Your task to perform on an android device: turn off data saver in the chrome app Image 0: 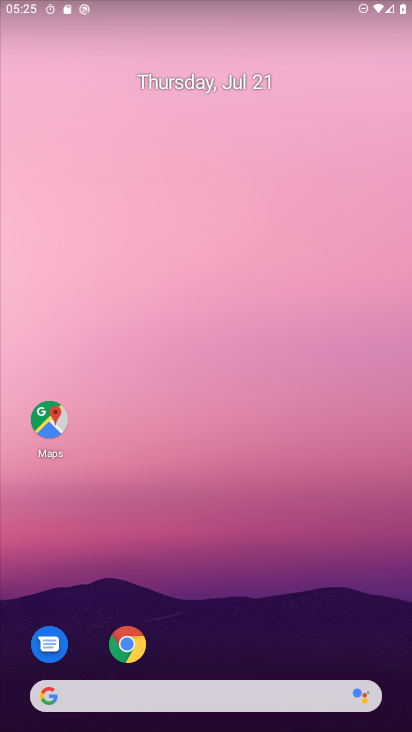
Step 0: click (128, 638)
Your task to perform on an android device: turn off data saver in the chrome app Image 1: 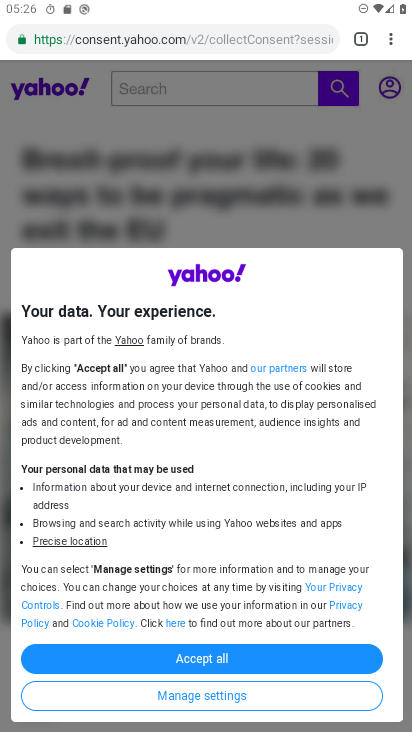
Step 1: click (387, 44)
Your task to perform on an android device: turn off data saver in the chrome app Image 2: 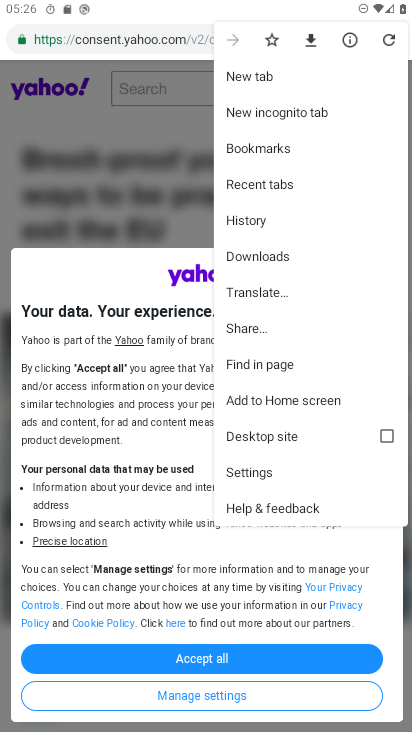
Step 2: click (270, 472)
Your task to perform on an android device: turn off data saver in the chrome app Image 3: 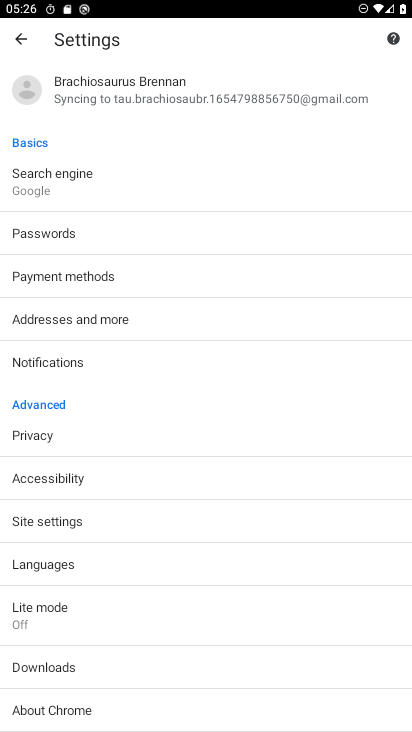
Step 3: click (41, 612)
Your task to perform on an android device: turn off data saver in the chrome app Image 4: 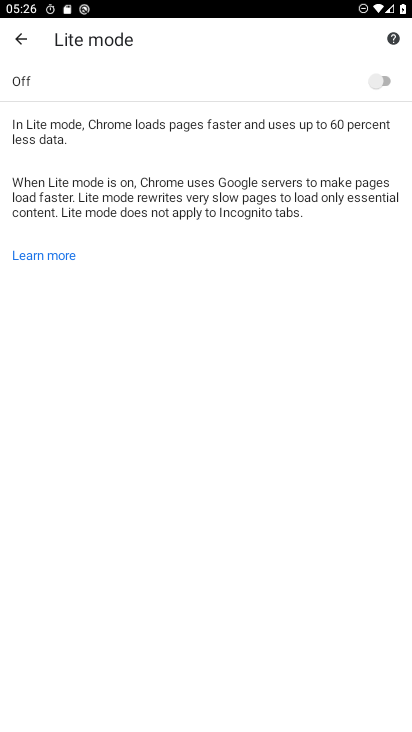
Step 4: task complete